Your task to perform on an android device: Open Maps and search for coffee Image 0: 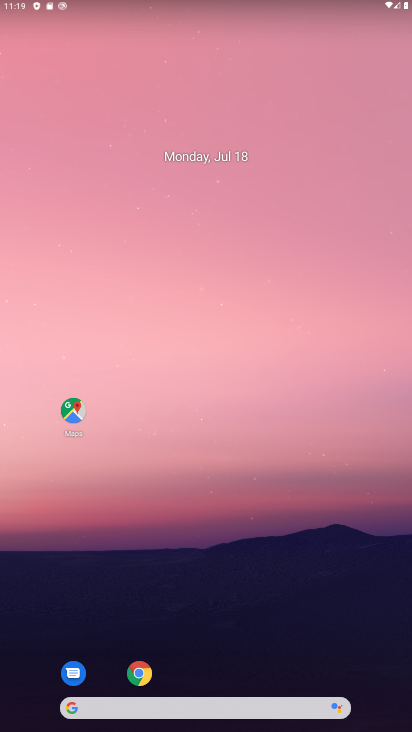
Step 0: press home button
Your task to perform on an android device: Open Maps and search for coffee Image 1: 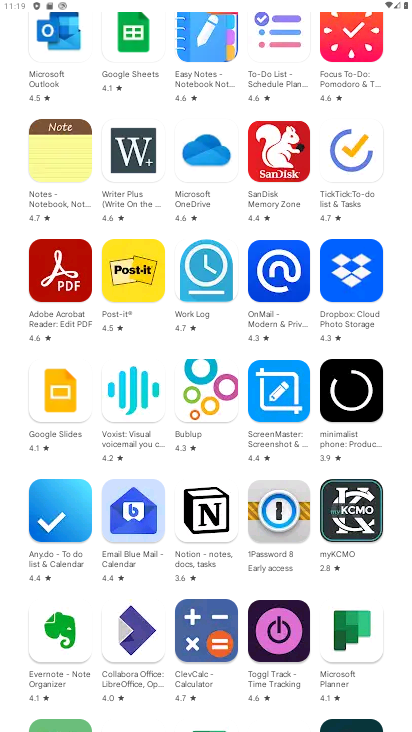
Step 1: drag from (225, 681) to (244, 42)
Your task to perform on an android device: Open Maps and search for coffee Image 2: 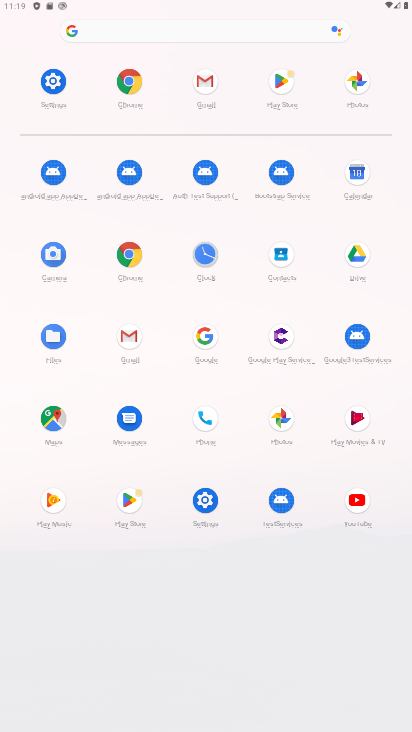
Step 2: click (51, 417)
Your task to perform on an android device: Open Maps and search for coffee Image 3: 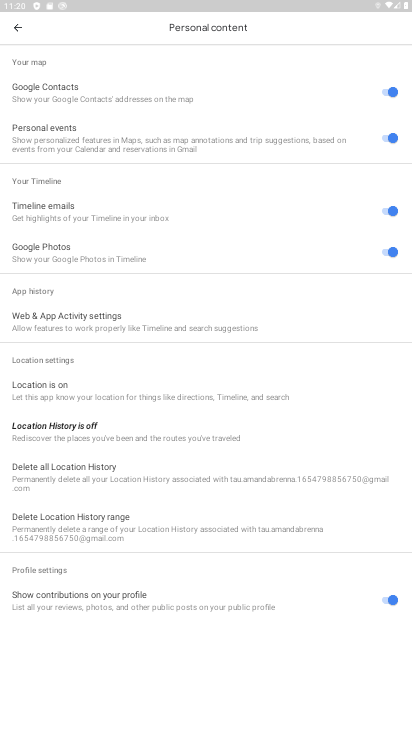
Step 3: click (18, 25)
Your task to perform on an android device: Open Maps and search for coffee Image 4: 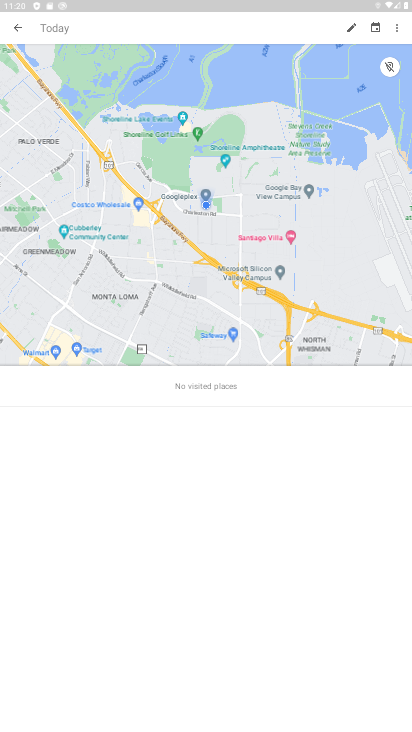
Step 4: click (12, 21)
Your task to perform on an android device: Open Maps and search for coffee Image 5: 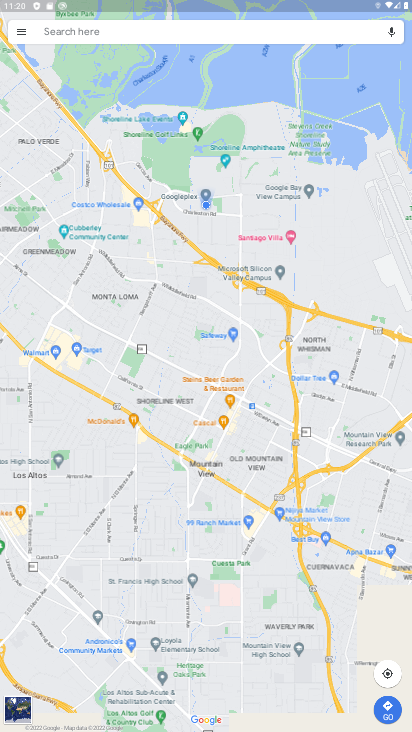
Step 5: click (89, 34)
Your task to perform on an android device: Open Maps and search for coffee Image 6: 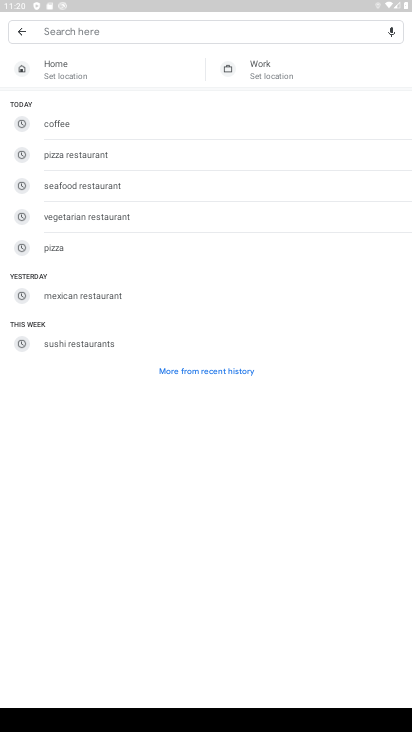
Step 6: click (72, 123)
Your task to perform on an android device: Open Maps and search for coffee Image 7: 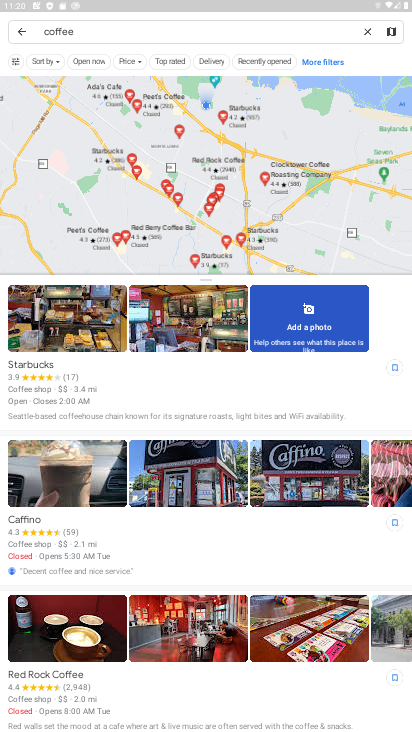
Step 7: task complete